Your task to perform on an android device: Open Google Chrome Image 0: 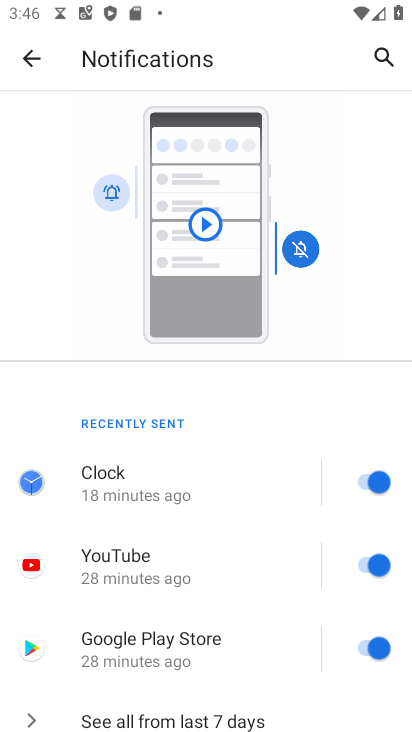
Step 0: press home button
Your task to perform on an android device: Open Google Chrome Image 1: 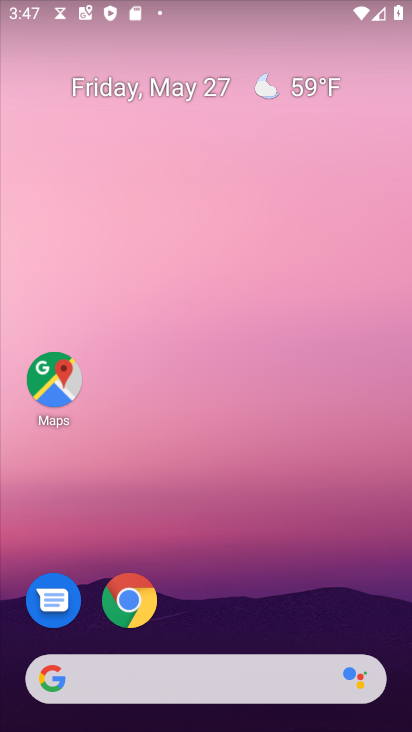
Step 1: click (127, 601)
Your task to perform on an android device: Open Google Chrome Image 2: 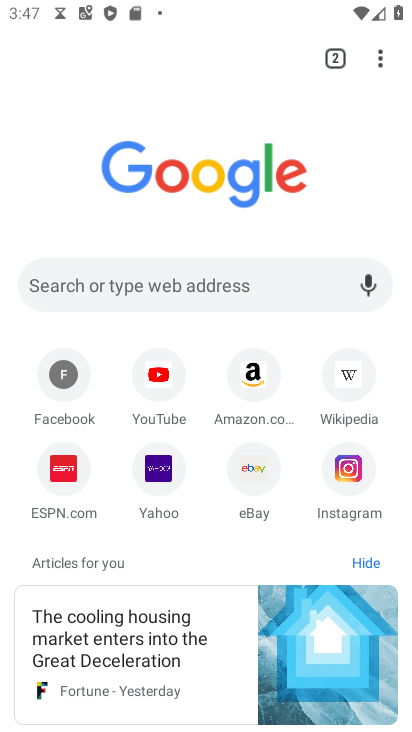
Step 2: task complete